Your task to perform on an android device: toggle improve location accuracy Image 0: 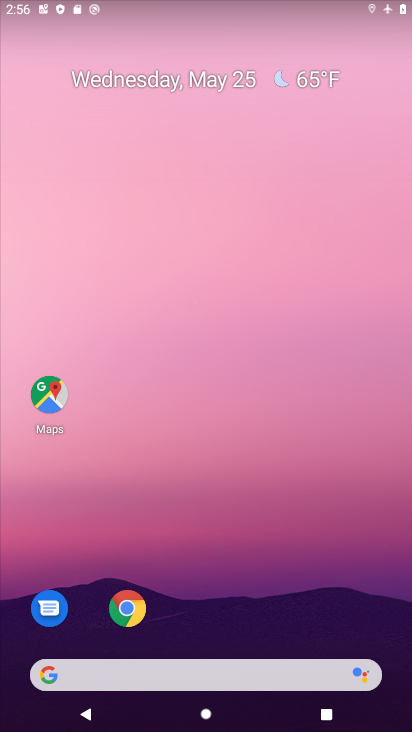
Step 0: drag from (251, 636) to (239, 25)
Your task to perform on an android device: toggle improve location accuracy Image 1: 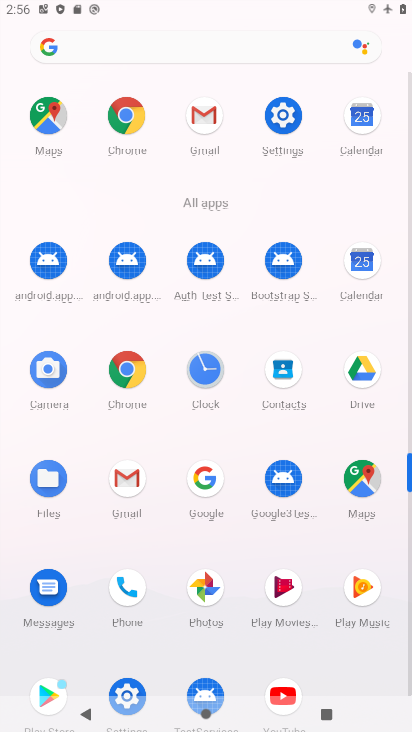
Step 1: click (285, 121)
Your task to perform on an android device: toggle improve location accuracy Image 2: 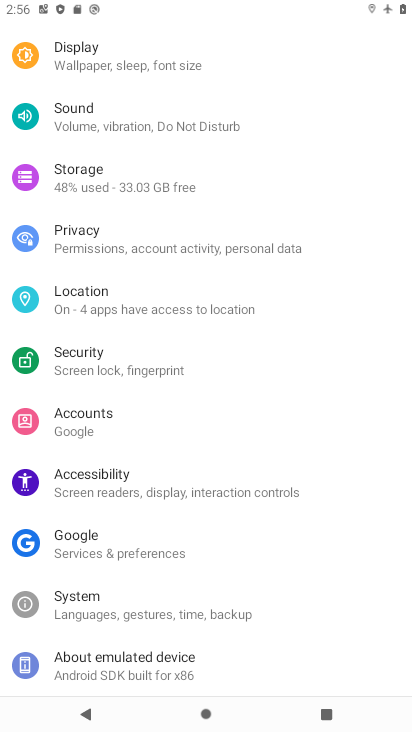
Step 2: click (105, 312)
Your task to perform on an android device: toggle improve location accuracy Image 3: 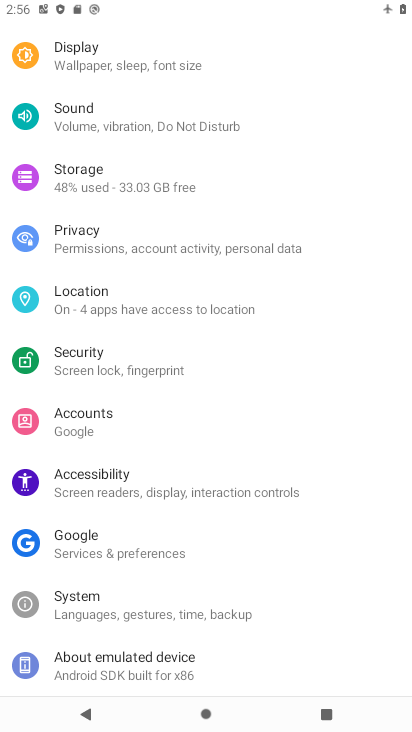
Step 3: click (74, 297)
Your task to perform on an android device: toggle improve location accuracy Image 4: 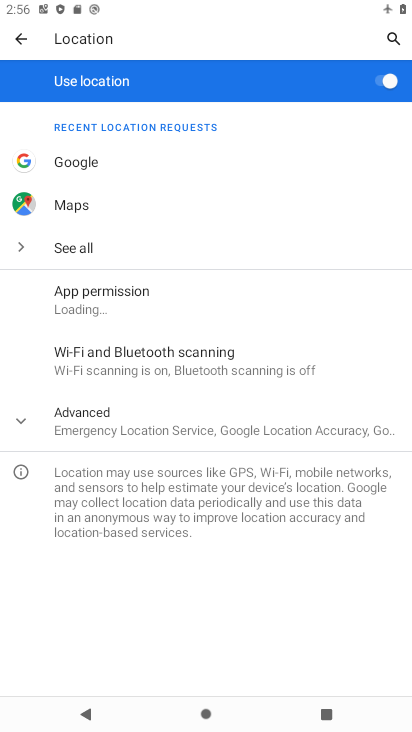
Step 4: click (15, 427)
Your task to perform on an android device: toggle improve location accuracy Image 5: 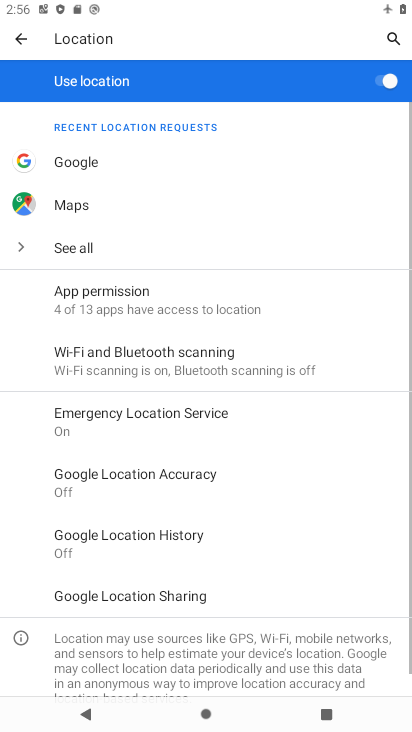
Step 5: click (128, 479)
Your task to perform on an android device: toggle improve location accuracy Image 6: 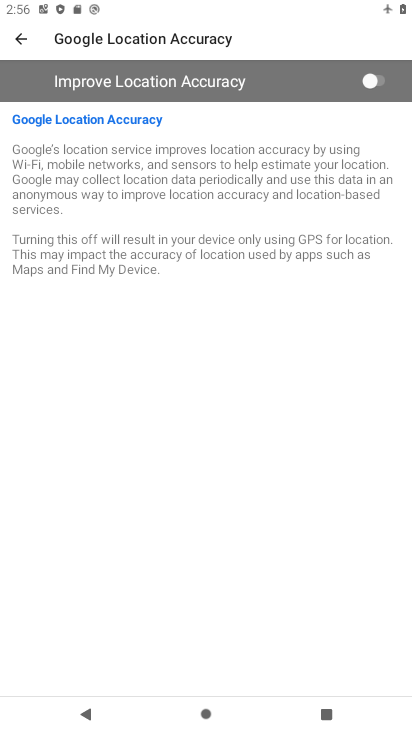
Step 6: click (366, 88)
Your task to perform on an android device: toggle improve location accuracy Image 7: 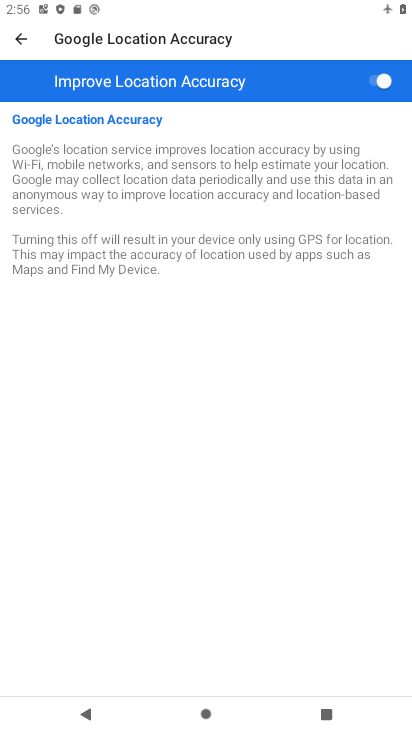
Step 7: task complete